Your task to perform on an android device: Open Google Chrome and click the shortcut for Amazon.com Image 0: 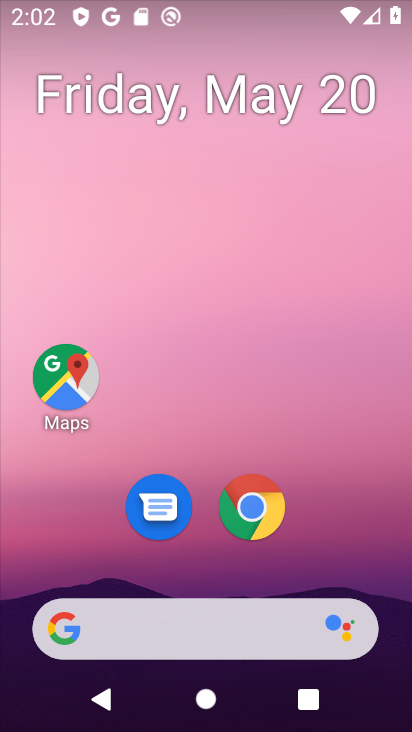
Step 0: click (238, 506)
Your task to perform on an android device: Open Google Chrome and click the shortcut for Amazon.com Image 1: 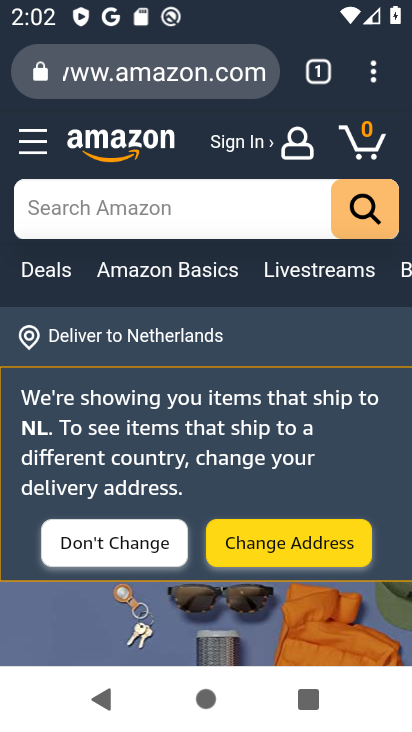
Step 1: click (359, 73)
Your task to perform on an android device: Open Google Chrome and click the shortcut for Amazon.com Image 2: 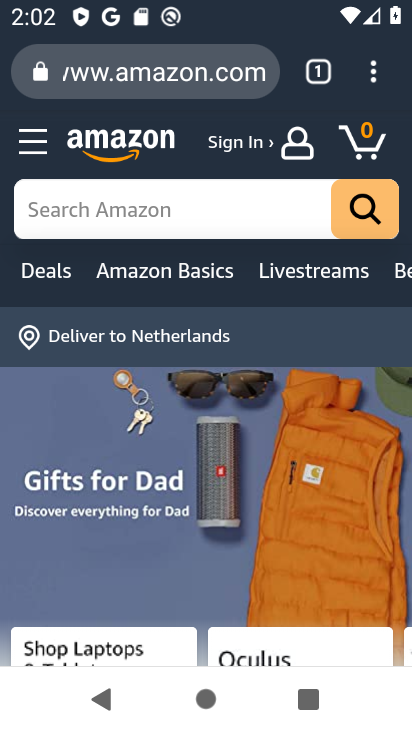
Step 2: click (370, 76)
Your task to perform on an android device: Open Google Chrome and click the shortcut for Amazon.com Image 3: 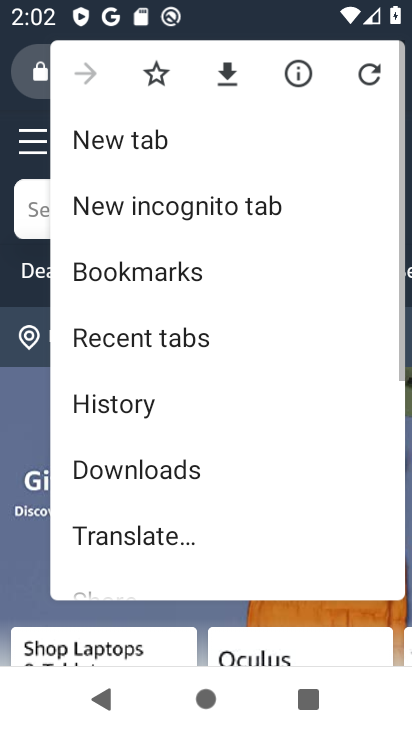
Step 3: click (171, 150)
Your task to perform on an android device: Open Google Chrome and click the shortcut for Amazon.com Image 4: 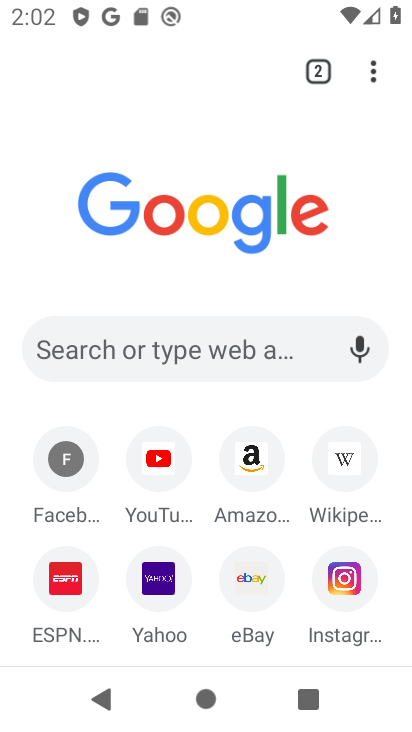
Step 4: click (245, 451)
Your task to perform on an android device: Open Google Chrome and click the shortcut for Amazon.com Image 5: 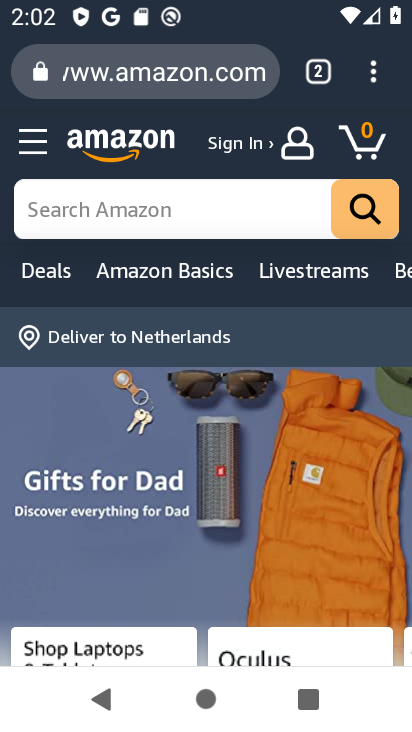
Step 5: task complete